Your task to perform on an android device: toggle improve location accuracy Image 0: 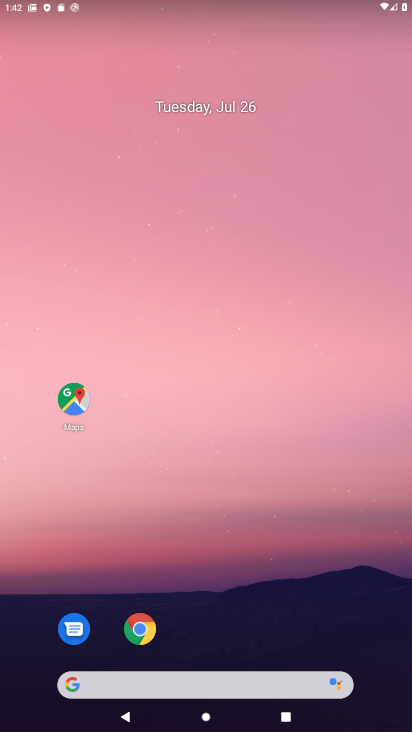
Step 0: drag from (212, 654) to (204, 90)
Your task to perform on an android device: toggle improve location accuracy Image 1: 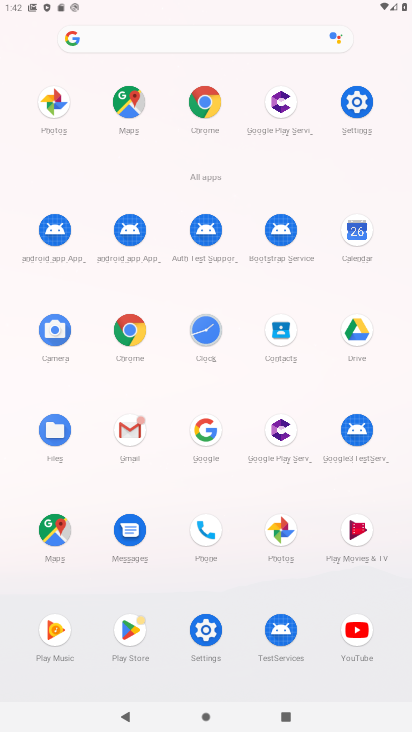
Step 1: click (369, 106)
Your task to perform on an android device: toggle improve location accuracy Image 2: 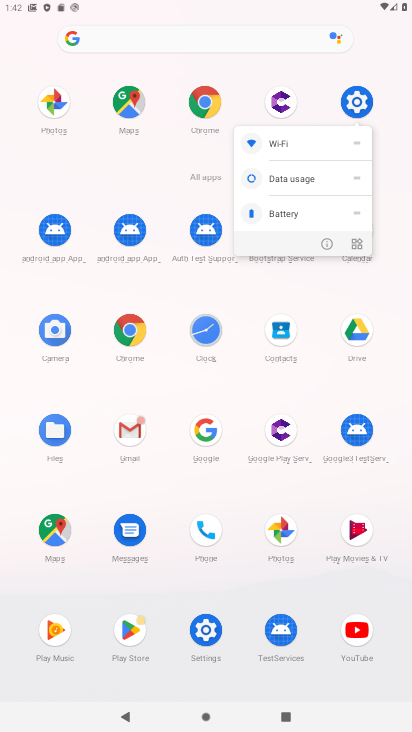
Step 2: click (358, 101)
Your task to perform on an android device: toggle improve location accuracy Image 3: 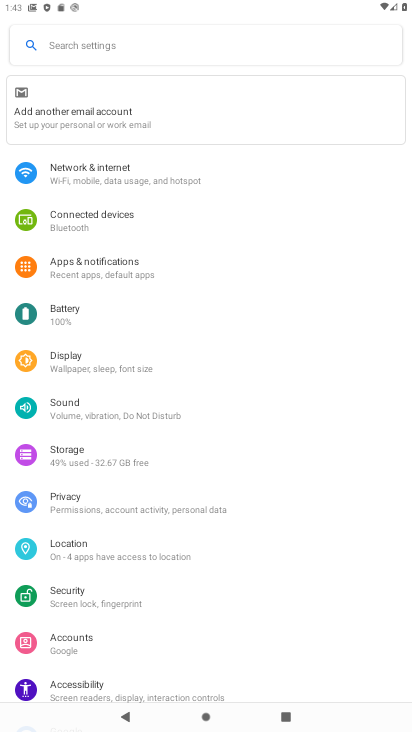
Step 3: click (72, 559)
Your task to perform on an android device: toggle improve location accuracy Image 4: 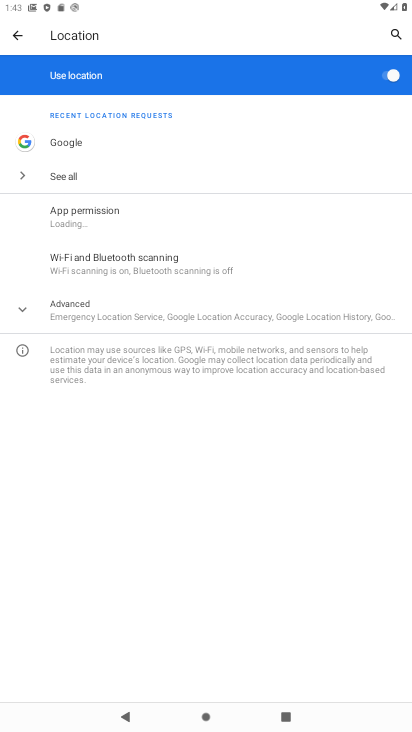
Step 4: click (104, 317)
Your task to perform on an android device: toggle improve location accuracy Image 5: 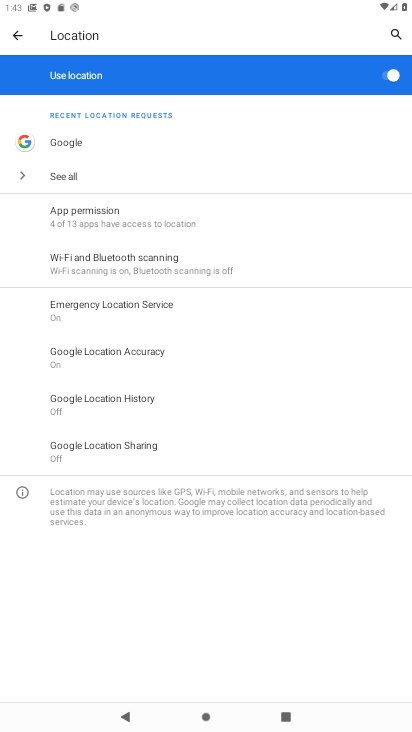
Step 5: click (134, 356)
Your task to perform on an android device: toggle improve location accuracy Image 6: 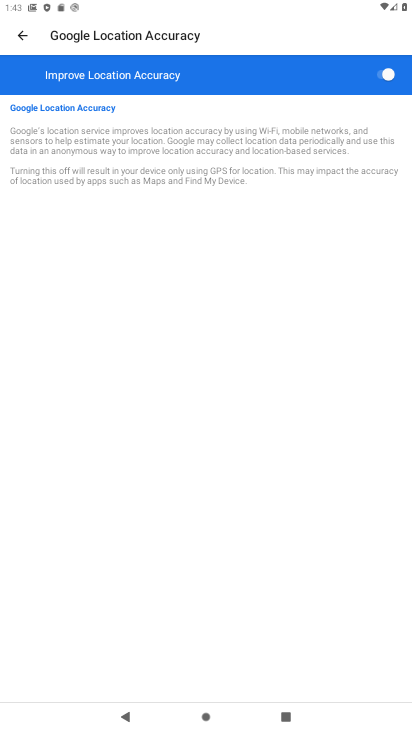
Step 6: click (378, 78)
Your task to perform on an android device: toggle improve location accuracy Image 7: 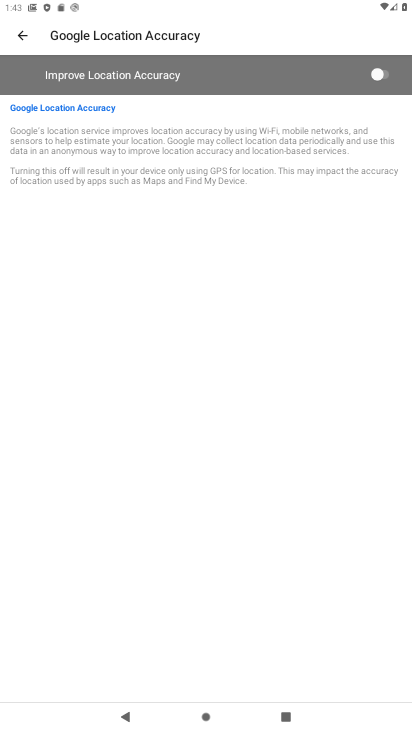
Step 7: task complete